Your task to perform on an android device: Open Google Chrome and open the bookmarks view Image 0: 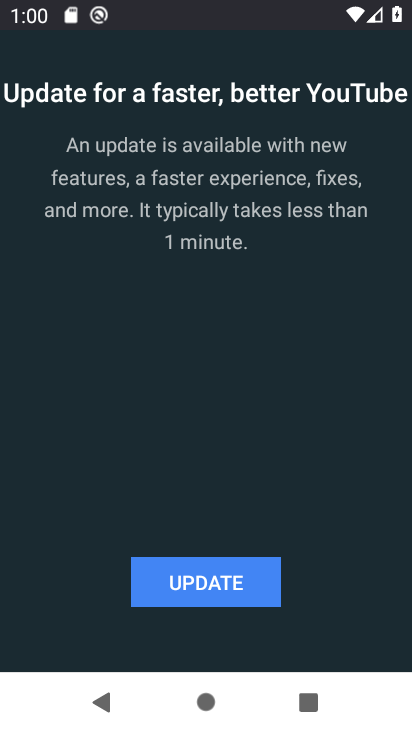
Step 0: press home button
Your task to perform on an android device: Open Google Chrome and open the bookmarks view Image 1: 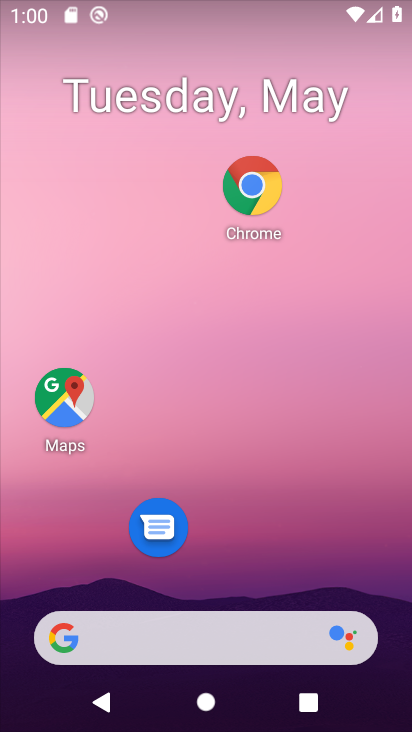
Step 1: click (246, 180)
Your task to perform on an android device: Open Google Chrome and open the bookmarks view Image 2: 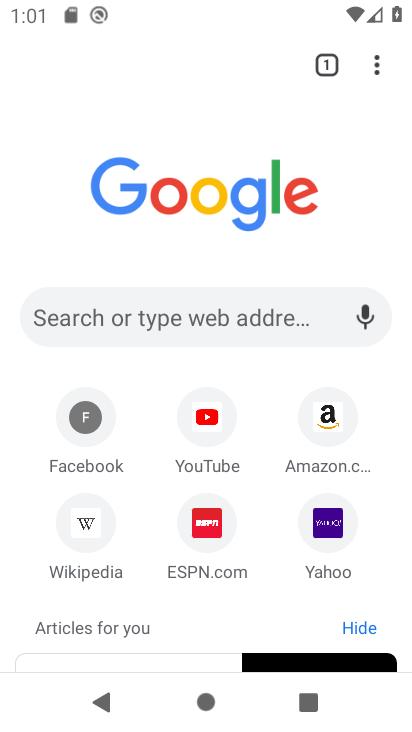
Step 2: click (377, 55)
Your task to perform on an android device: Open Google Chrome and open the bookmarks view Image 3: 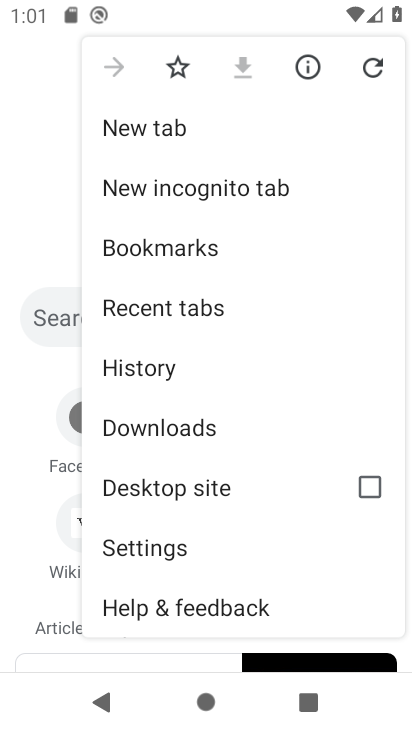
Step 3: click (170, 243)
Your task to perform on an android device: Open Google Chrome and open the bookmarks view Image 4: 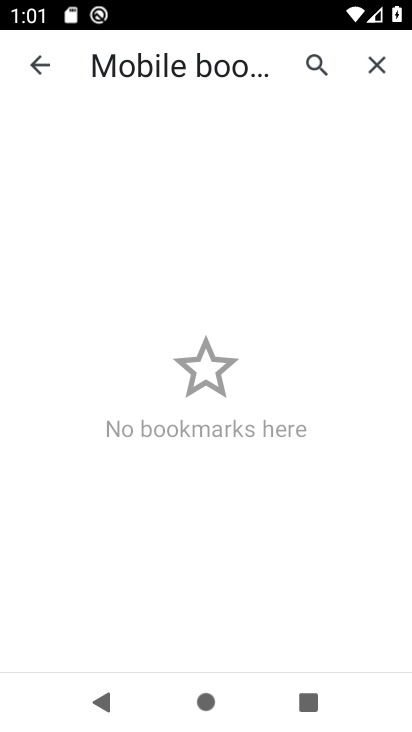
Step 4: task complete